Your task to perform on an android device: stop showing notifications on the lock screen Image 0: 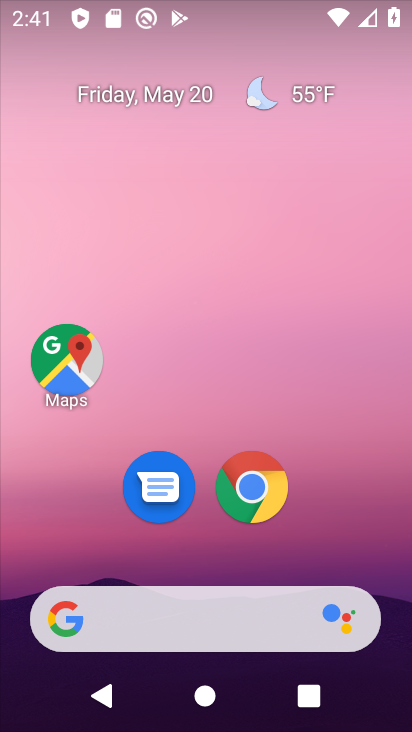
Step 0: drag from (251, 703) to (116, 224)
Your task to perform on an android device: stop showing notifications on the lock screen Image 1: 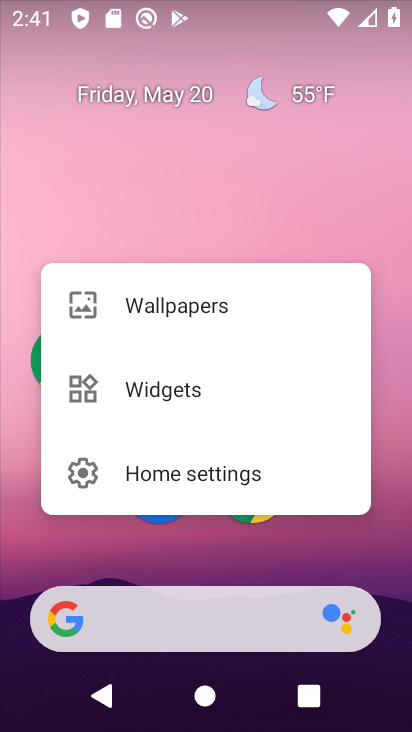
Step 1: drag from (237, 618) to (79, 108)
Your task to perform on an android device: stop showing notifications on the lock screen Image 2: 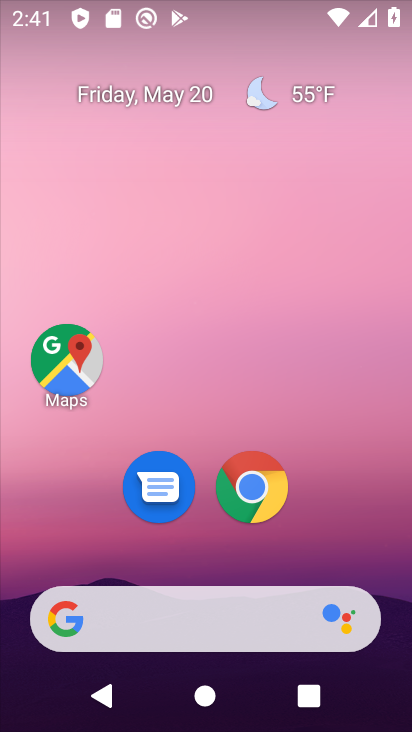
Step 2: drag from (262, 647) to (131, 309)
Your task to perform on an android device: stop showing notifications on the lock screen Image 3: 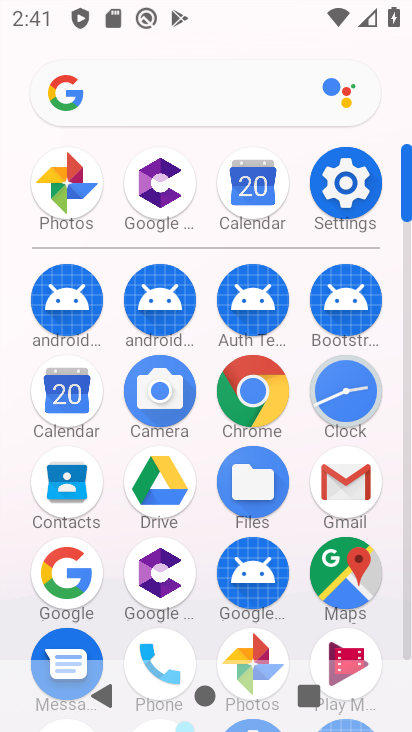
Step 3: click (341, 188)
Your task to perform on an android device: stop showing notifications on the lock screen Image 4: 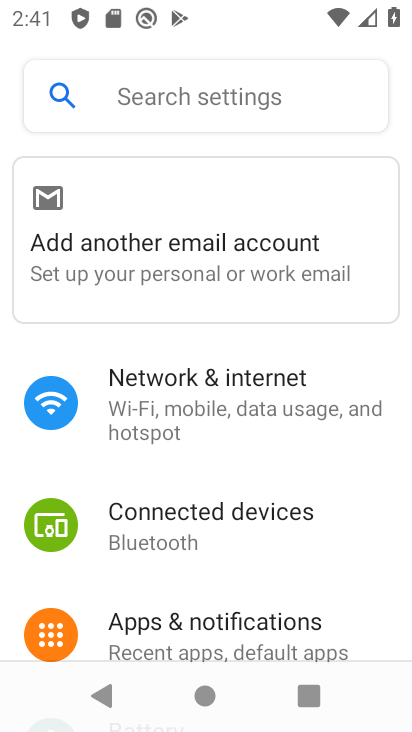
Step 4: drag from (230, 562) to (216, 133)
Your task to perform on an android device: stop showing notifications on the lock screen Image 5: 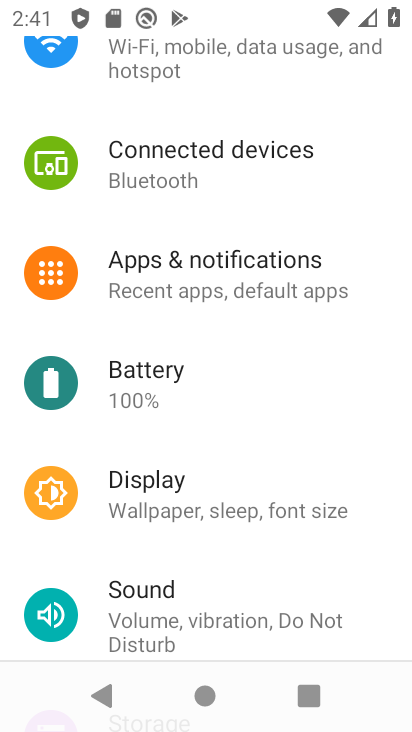
Step 5: drag from (233, 572) to (264, 18)
Your task to perform on an android device: stop showing notifications on the lock screen Image 6: 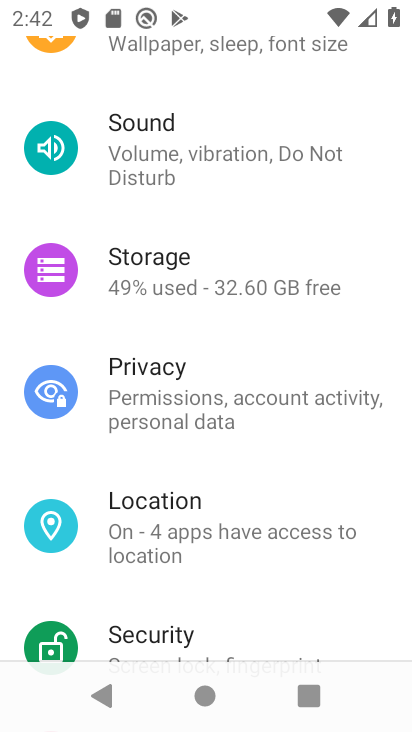
Step 6: drag from (196, 154) to (228, 572)
Your task to perform on an android device: stop showing notifications on the lock screen Image 7: 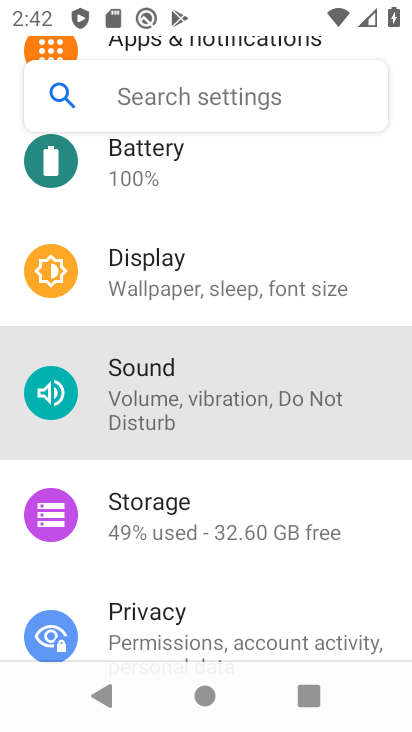
Step 7: drag from (163, 301) to (189, 538)
Your task to perform on an android device: stop showing notifications on the lock screen Image 8: 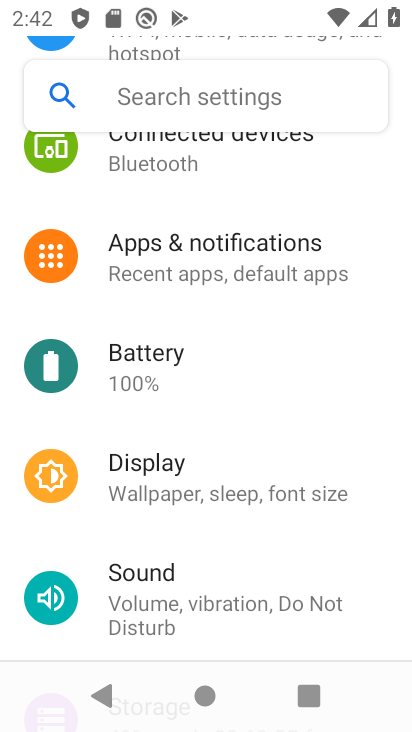
Step 8: click (218, 262)
Your task to perform on an android device: stop showing notifications on the lock screen Image 9: 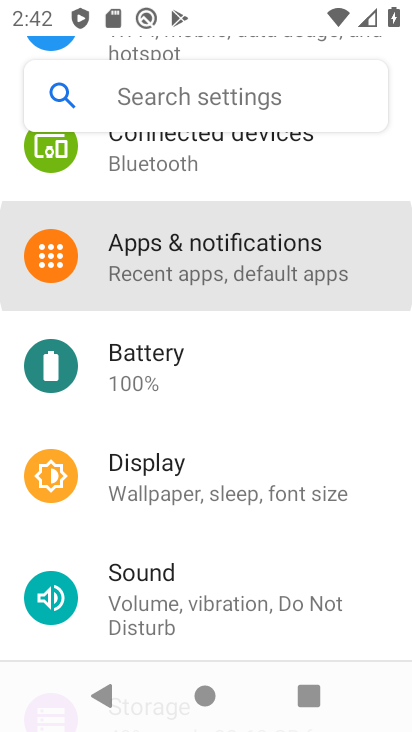
Step 9: click (218, 262)
Your task to perform on an android device: stop showing notifications on the lock screen Image 10: 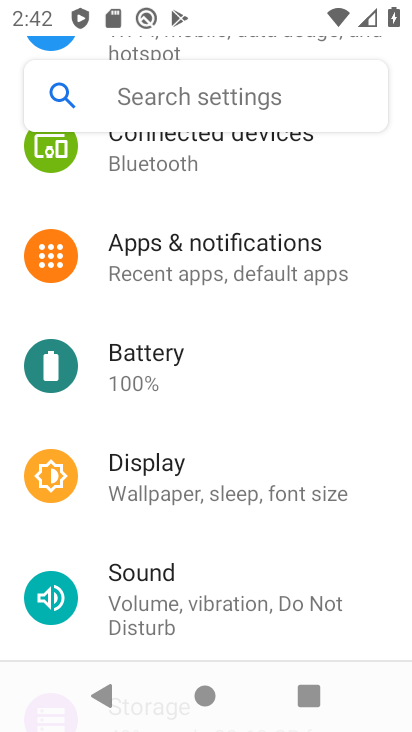
Step 10: click (218, 262)
Your task to perform on an android device: stop showing notifications on the lock screen Image 11: 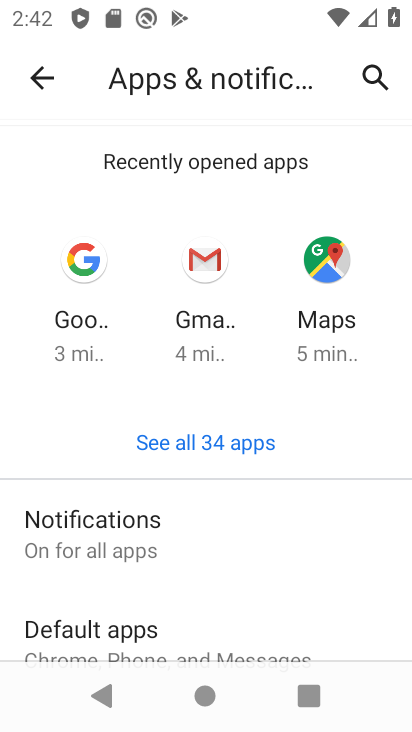
Step 11: drag from (183, 578) to (120, 9)
Your task to perform on an android device: stop showing notifications on the lock screen Image 12: 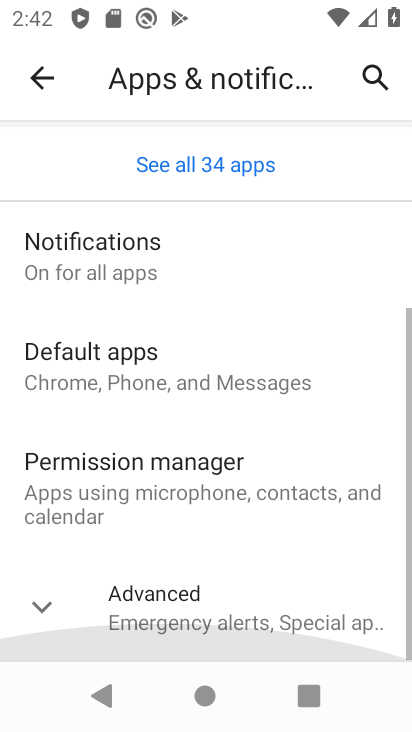
Step 12: drag from (177, 430) to (183, 99)
Your task to perform on an android device: stop showing notifications on the lock screen Image 13: 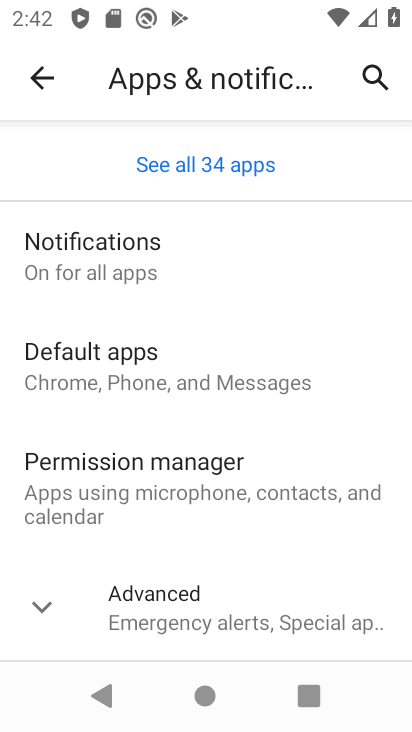
Step 13: click (101, 271)
Your task to perform on an android device: stop showing notifications on the lock screen Image 14: 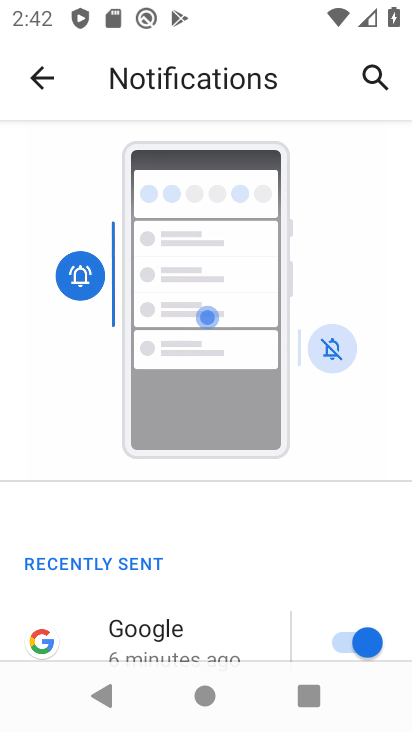
Step 14: drag from (209, 461) to (169, 141)
Your task to perform on an android device: stop showing notifications on the lock screen Image 15: 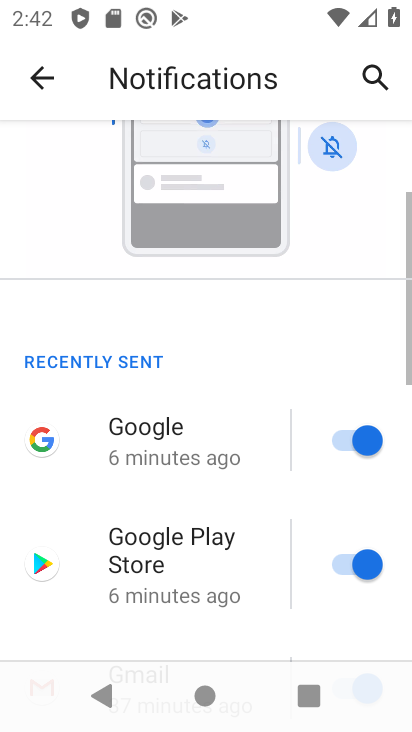
Step 15: drag from (236, 465) to (189, 51)
Your task to perform on an android device: stop showing notifications on the lock screen Image 16: 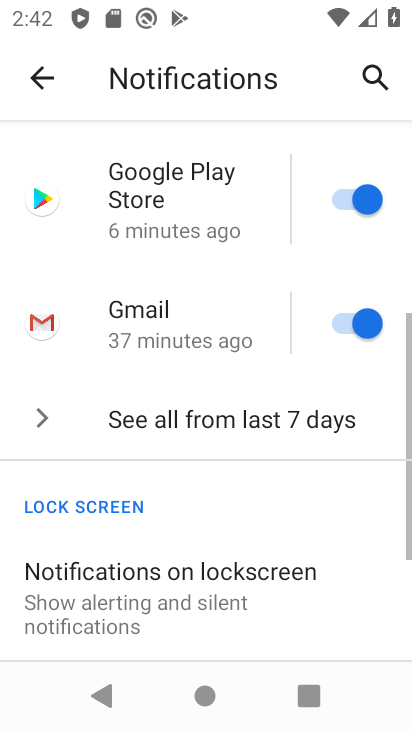
Step 16: drag from (191, 569) to (127, 17)
Your task to perform on an android device: stop showing notifications on the lock screen Image 17: 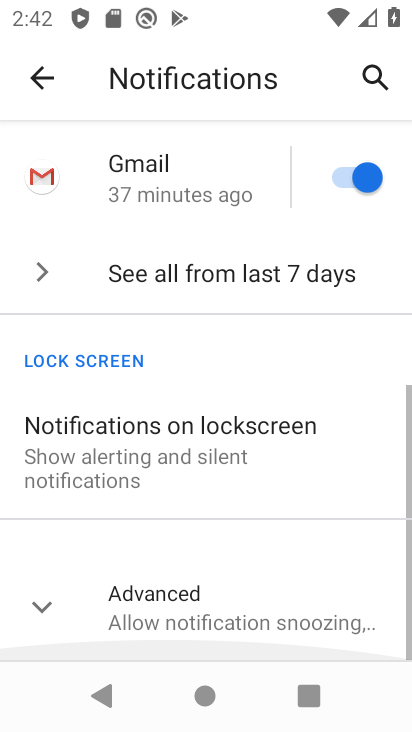
Step 17: drag from (168, 447) to (172, 53)
Your task to perform on an android device: stop showing notifications on the lock screen Image 18: 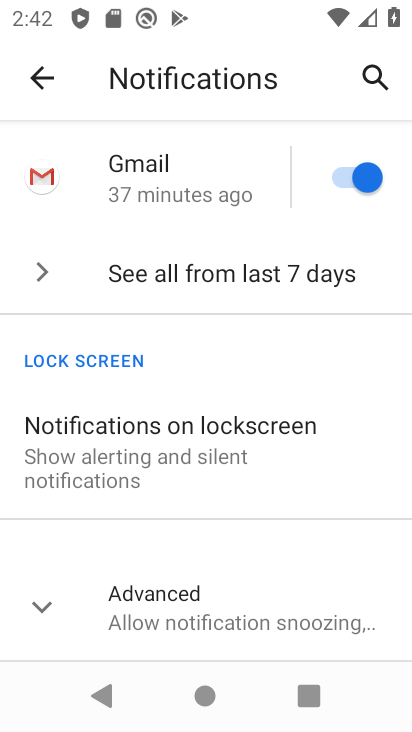
Step 18: click (117, 437)
Your task to perform on an android device: stop showing notifications on the lock screen Image 19: 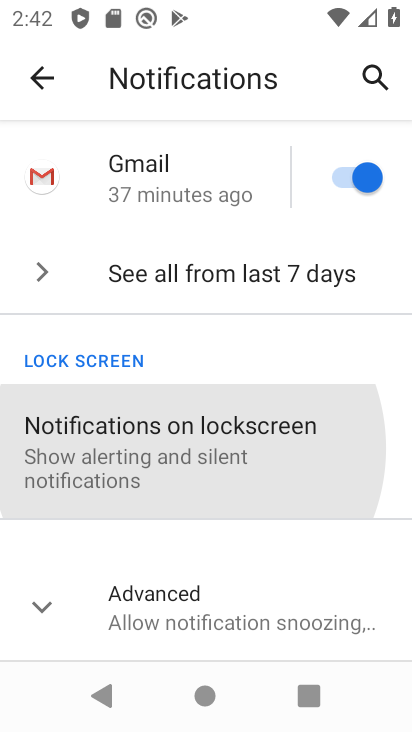
Step 19: click (120, 436)
Your task to perform on an android device: stop showing notifications on the lock screen Image 20: 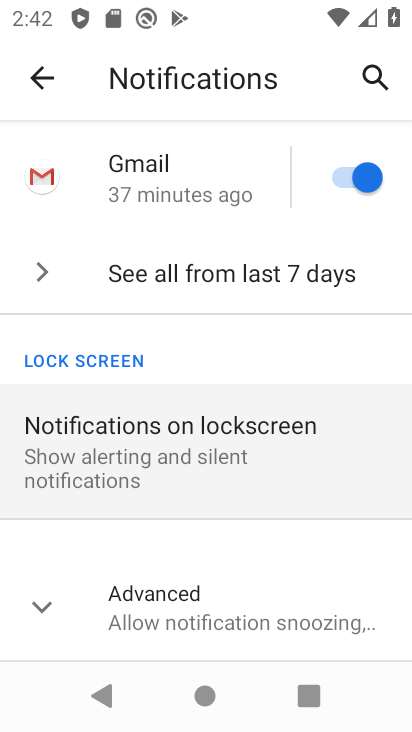
Step 20: click (124, 445)
Your task to perform on an android device: stop showing notifications on the lock screen Image 21: 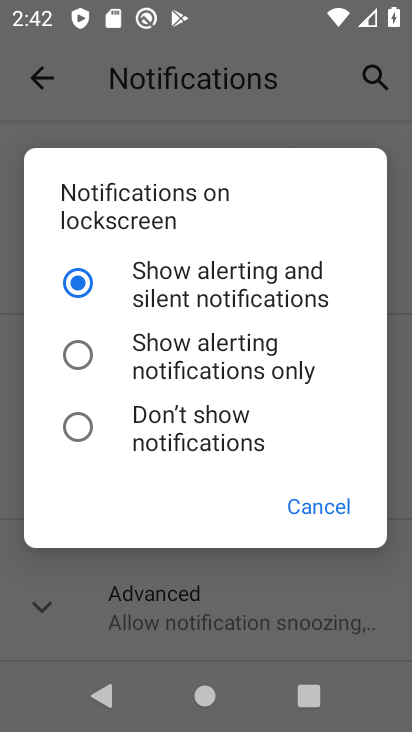
Step 21: click (124, 445)
Your task to perform on an android device: stop showing notifications on the lock screen Image 22: 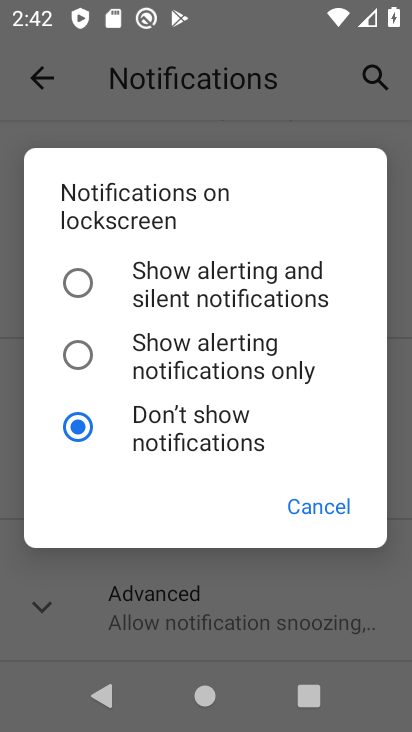
Step 22: task complete